Your task to perform on an android device: What's the weather? Image 0: 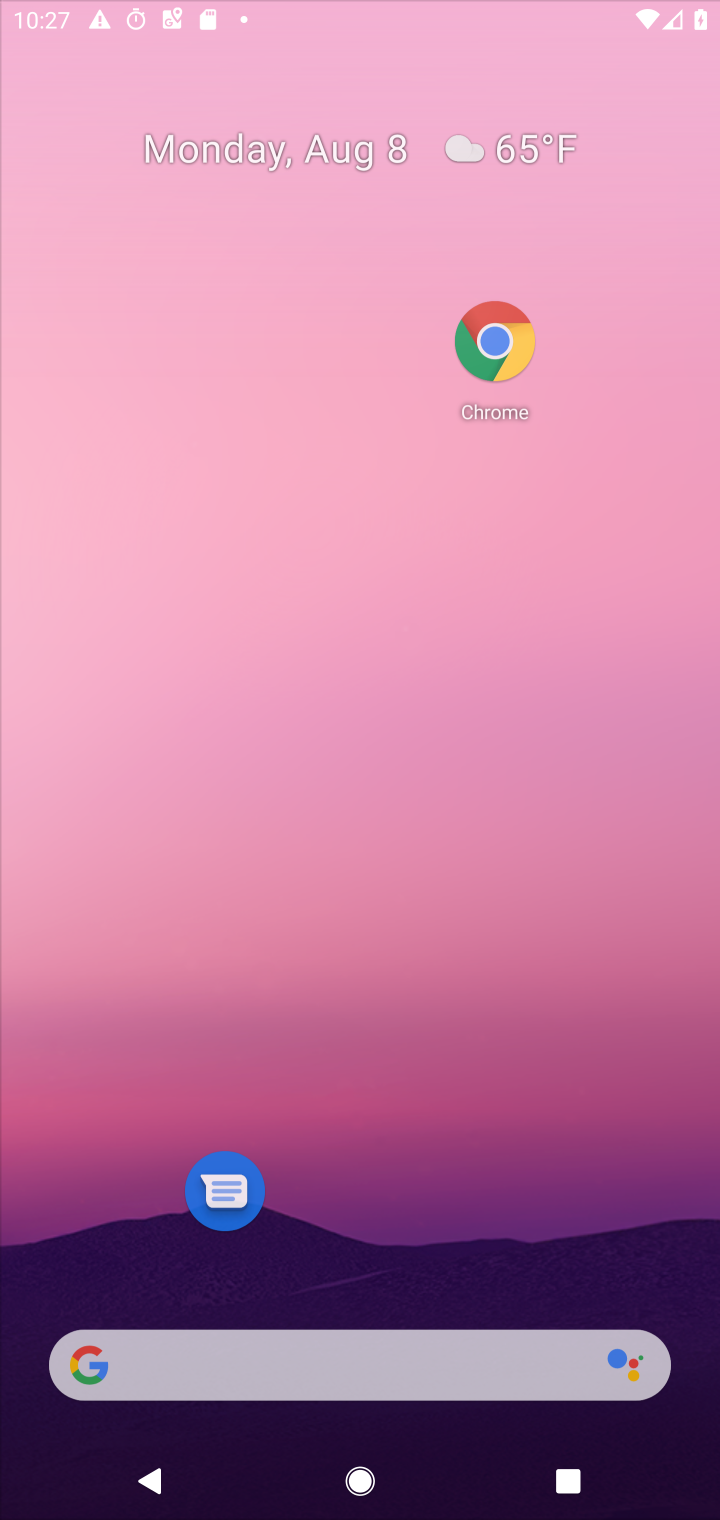
Step 0: press home button
Your task to perform on an android device: What's the weather? Image 1: 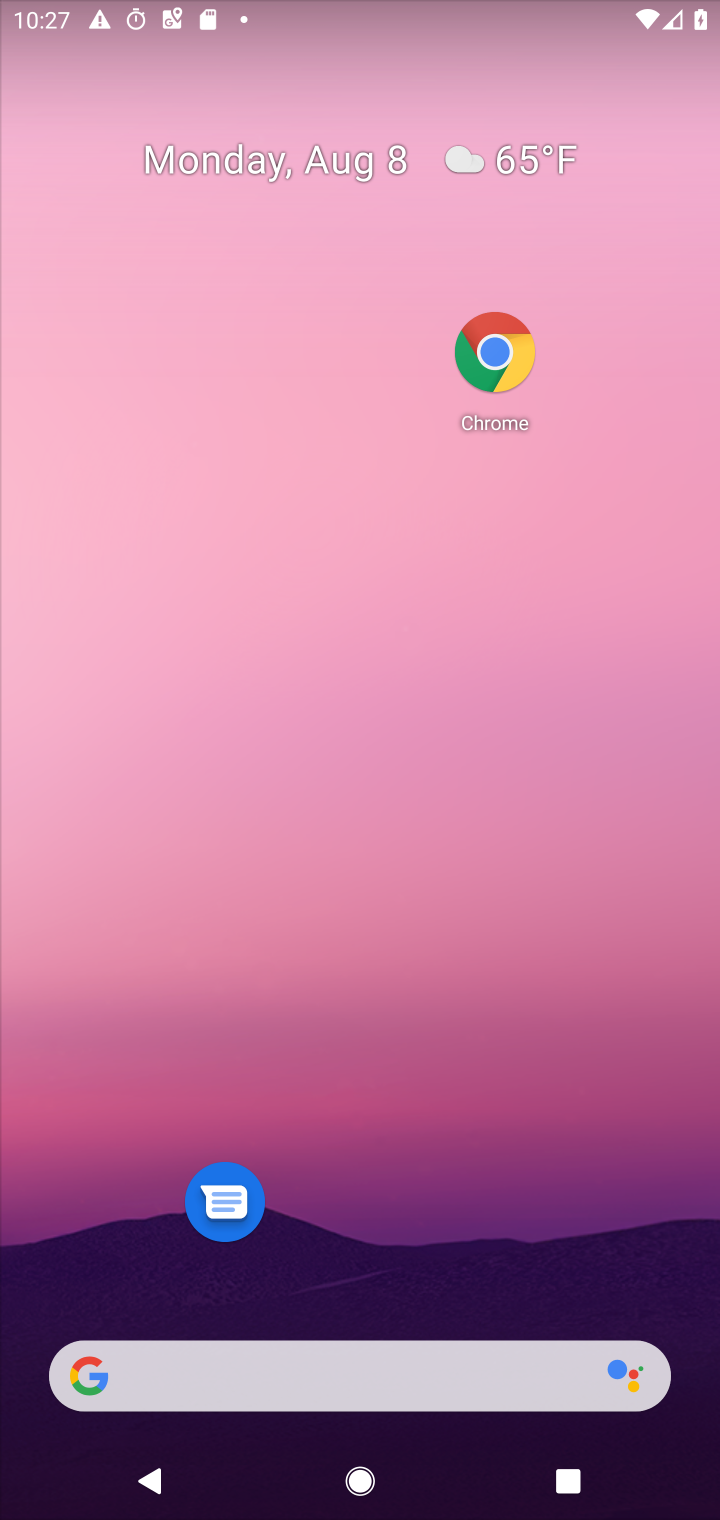
Step 1: drag from (471, 1373) to (708, 223)
Your task to perform on an android device: What's the weather? Image 2: 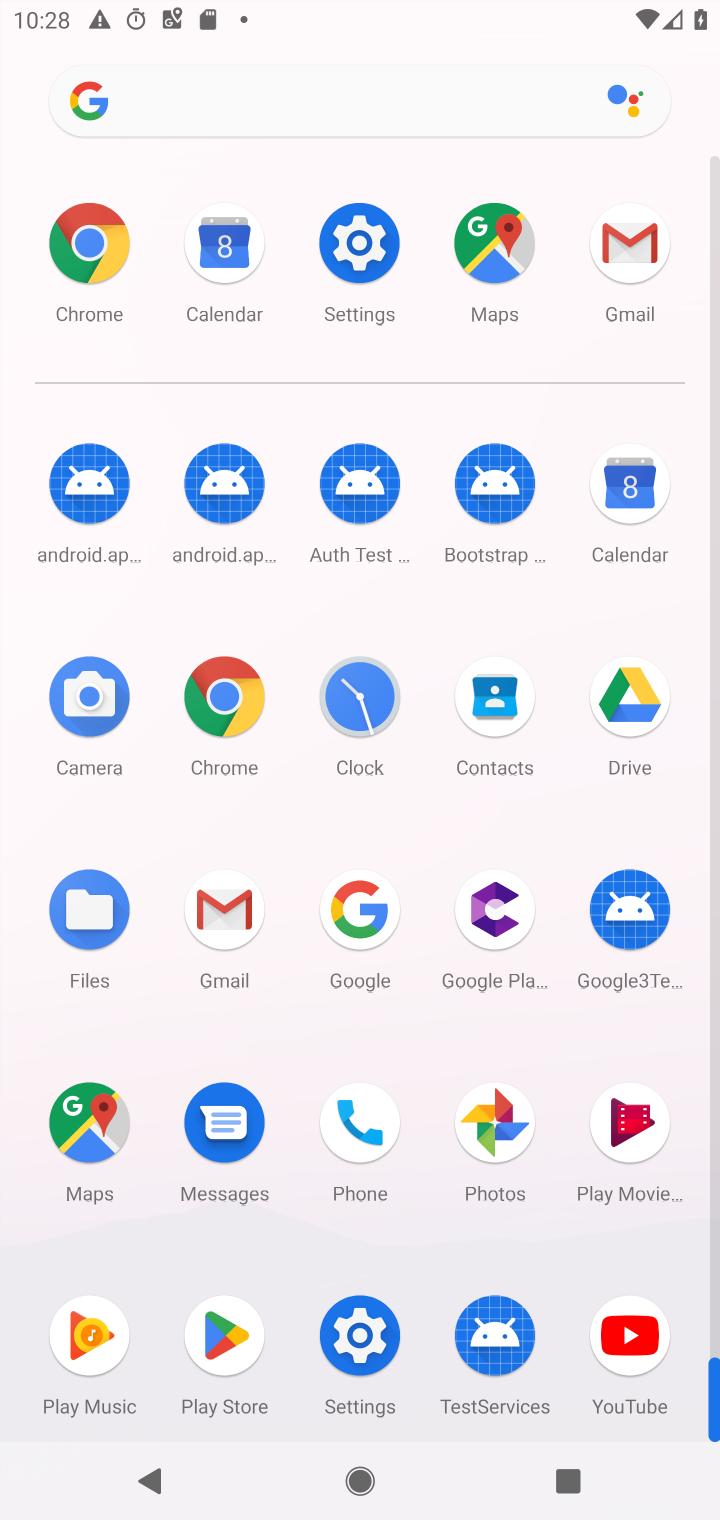
Step 2: click (388, 935)
Your task to perform on an android device: What's the weather? Image 3: 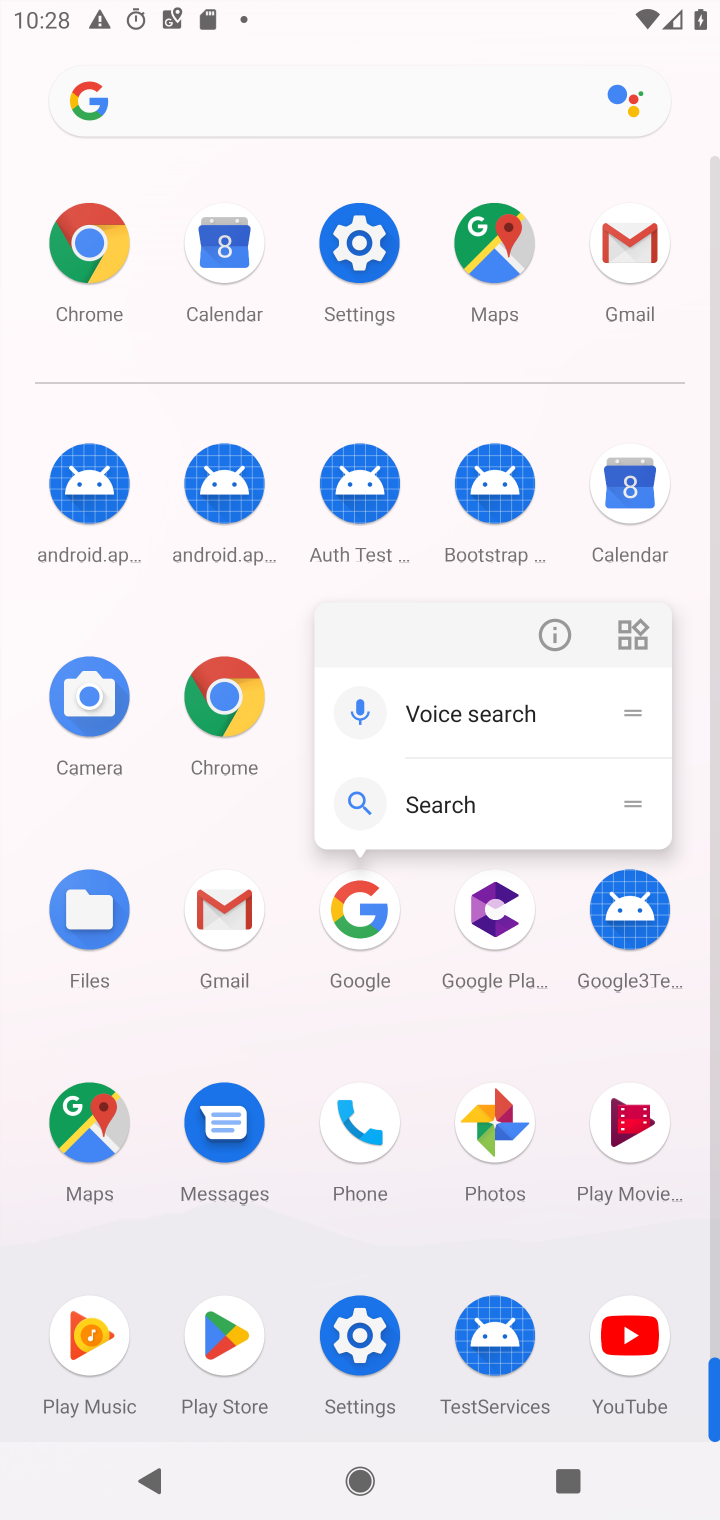
Step 3: click (387, 942)
Your task to perform on an android device: What's the weather? Image 4: 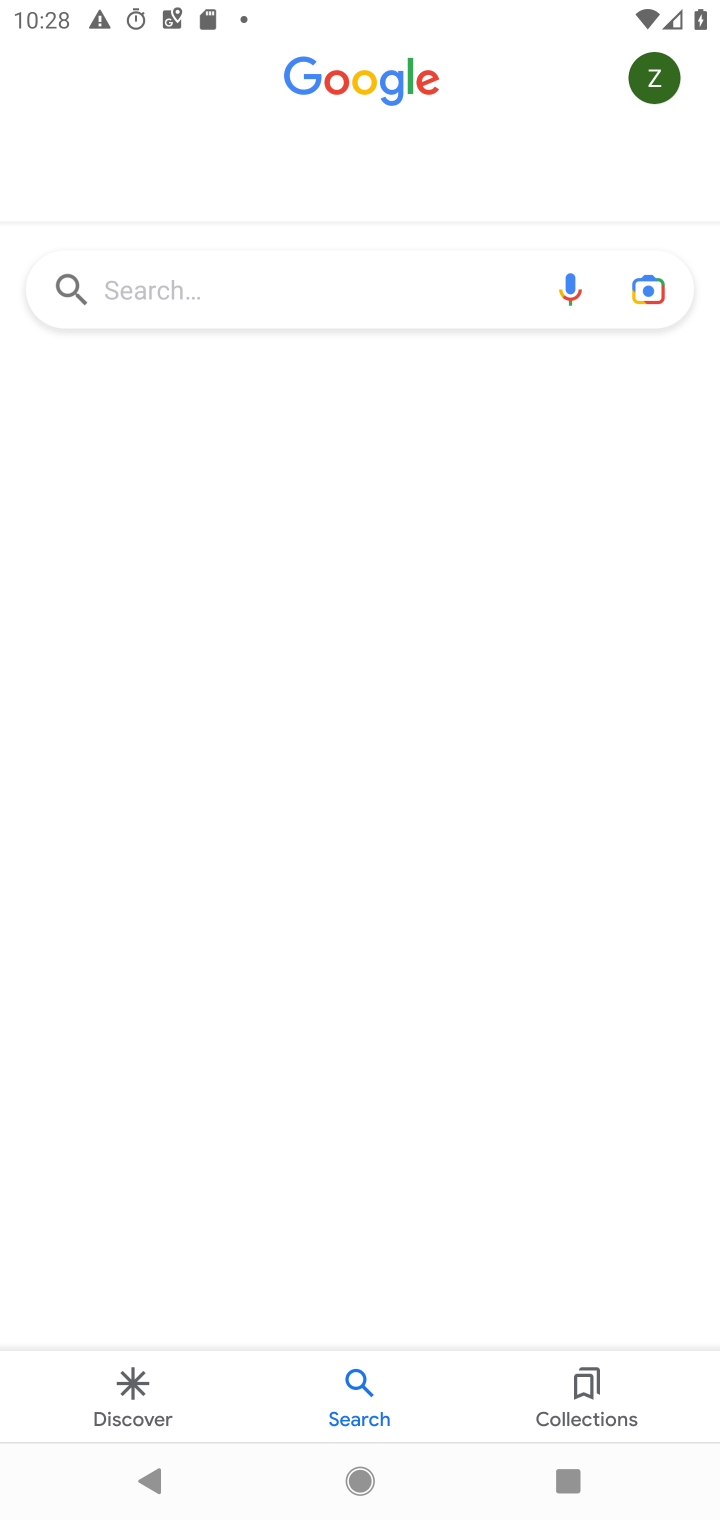
Step 4: click (302, 279)
Your task to perform on an android device: What's the weather? Image 5: 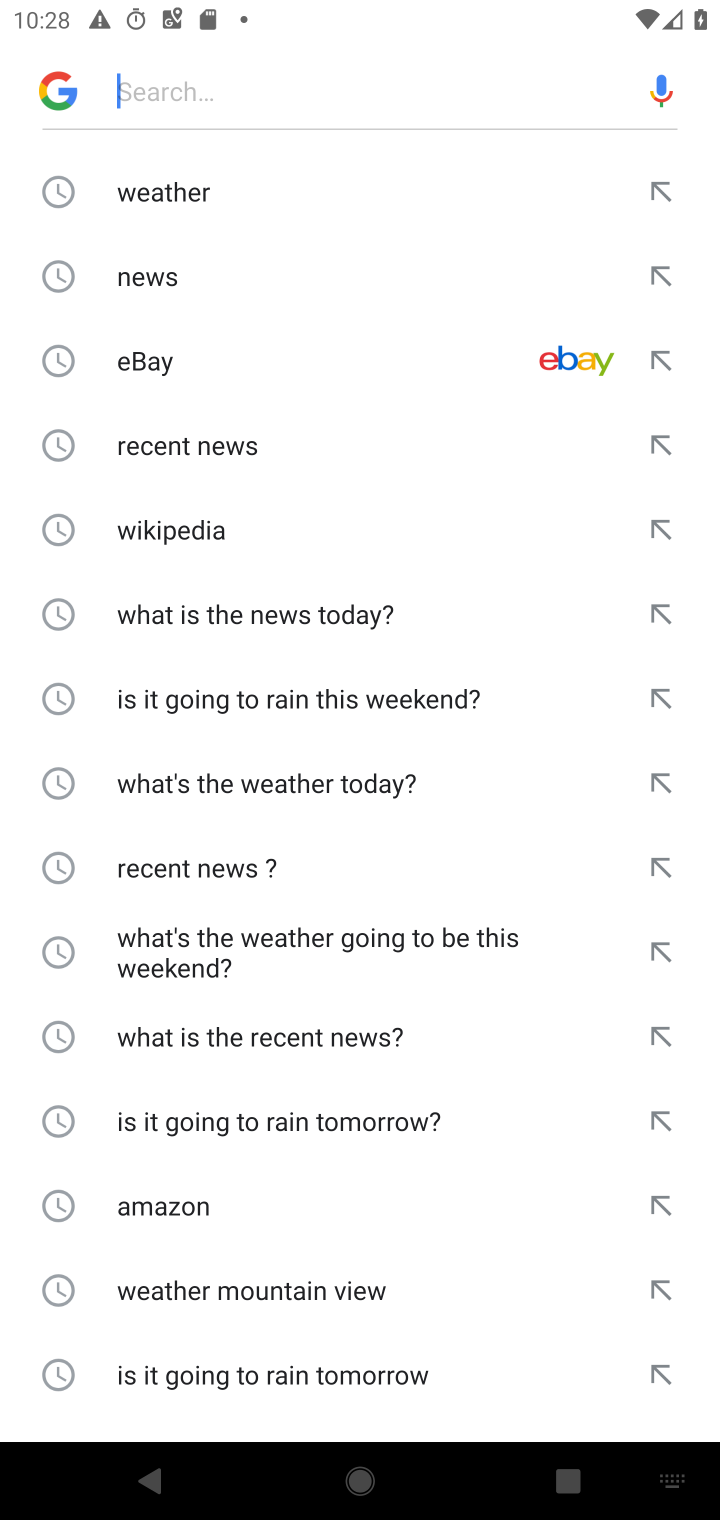
Step 5: click (247, 197)
Your task to perform on an android device: What's the weather? Image 6: 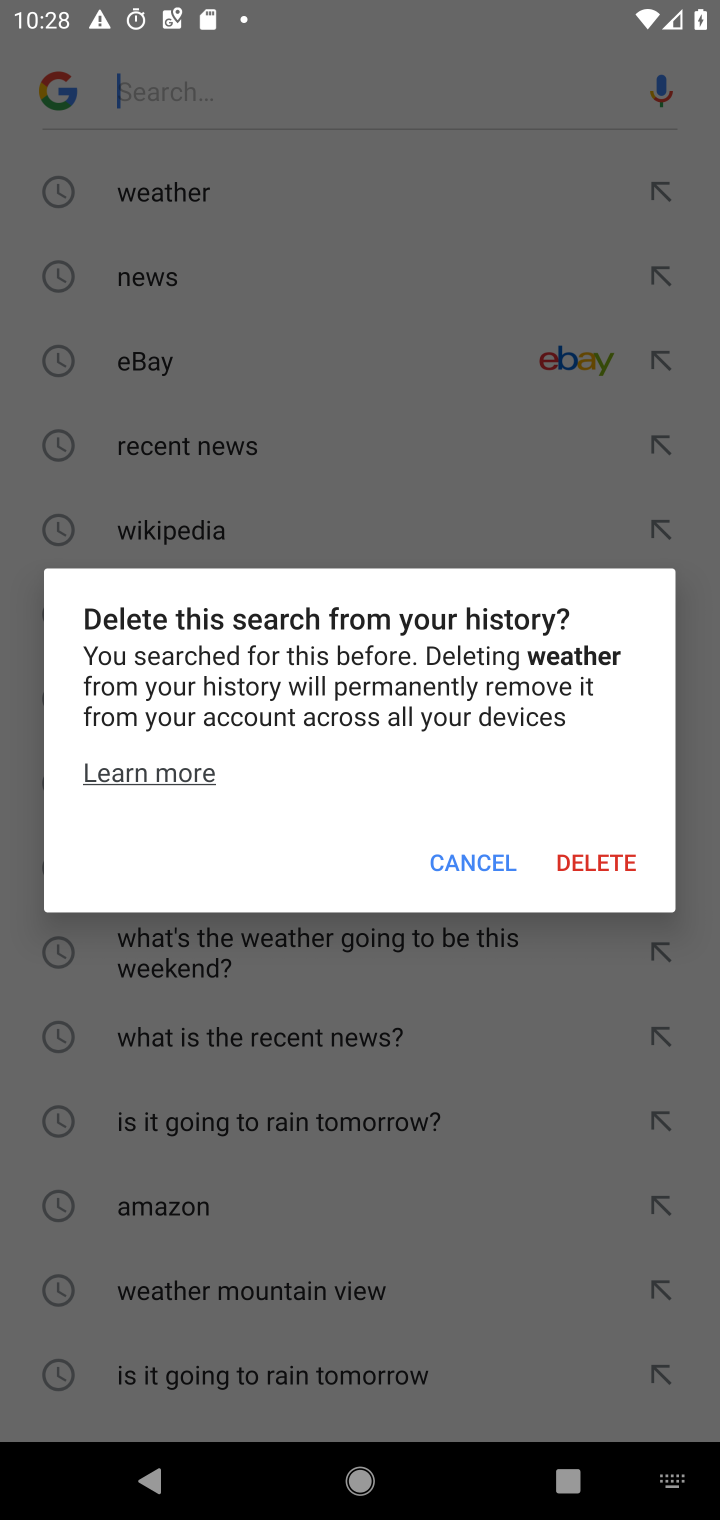
Step 6: click (379, 336)
Your task to perform on an android device: What's the weather? Image 7: 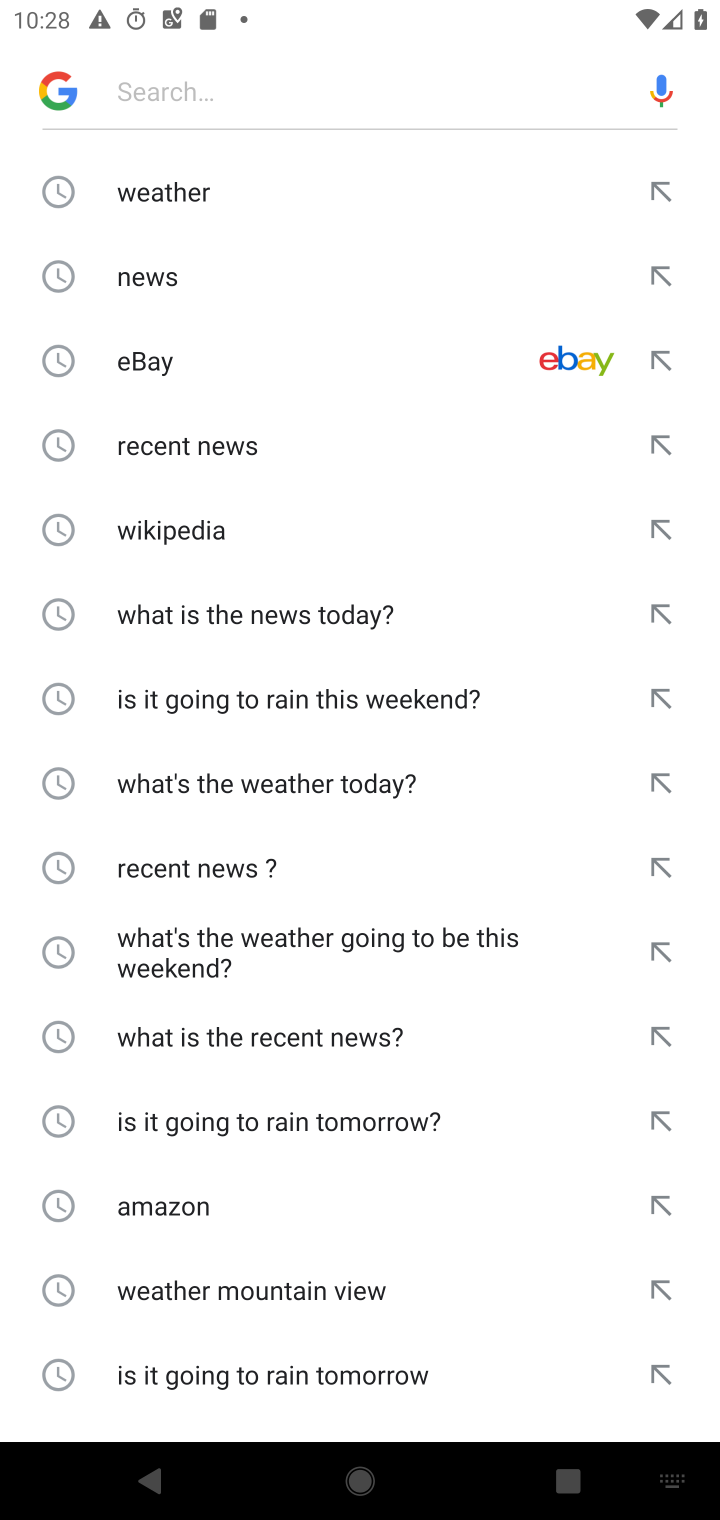
Step 7: click (396, 189)
Your task to perform on an android device: What's the weather? Image 8: 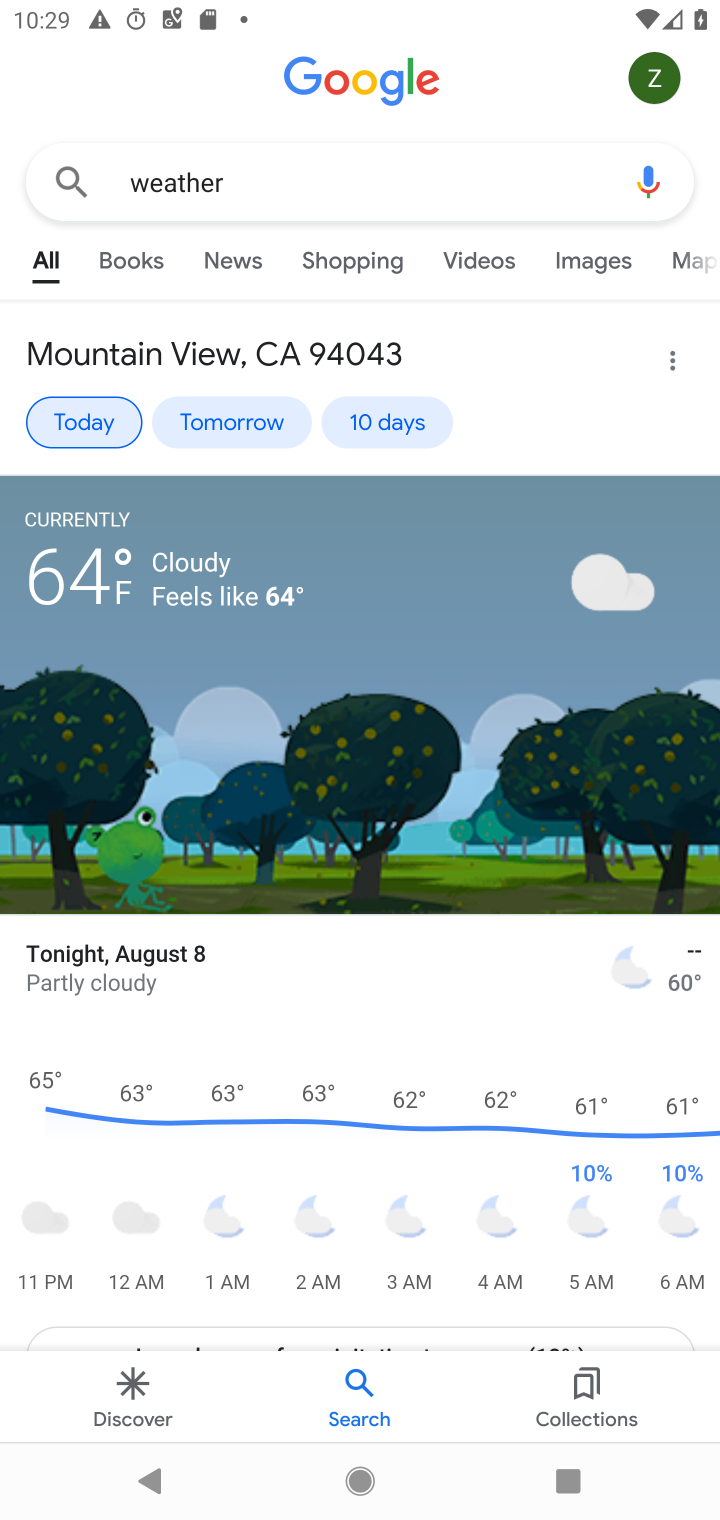
Step 8: task complete